Your task to perform on an android device: Go to Wikipedia Image 0: 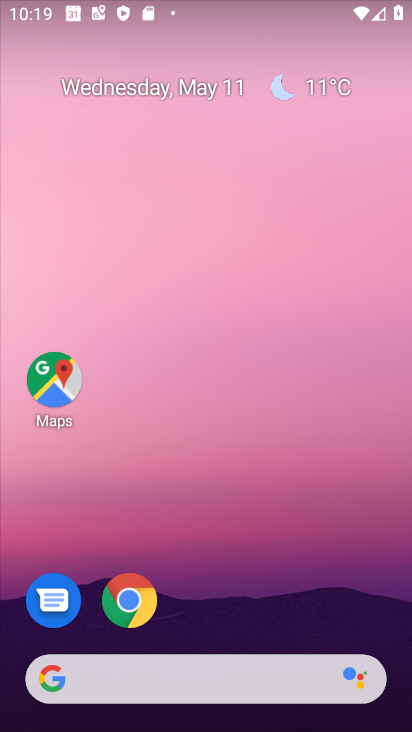
Step 0: click (387, 348)
Your task to perform on an android device: Go to Wikipedia Image 1: 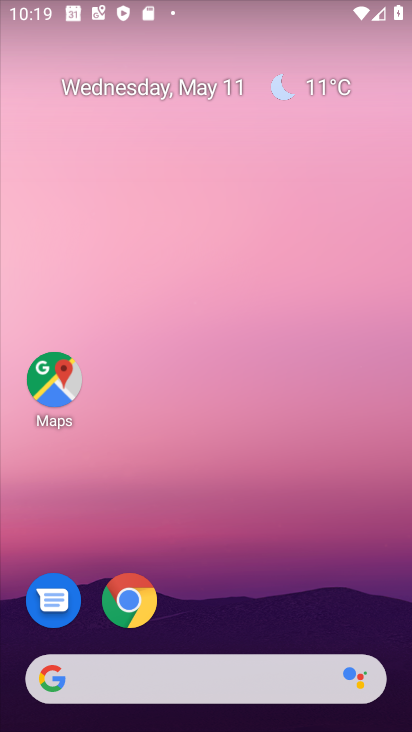
Step 1: click (186, 678)
Your task to perform on an android device: Go to Wikipedia Image 2: 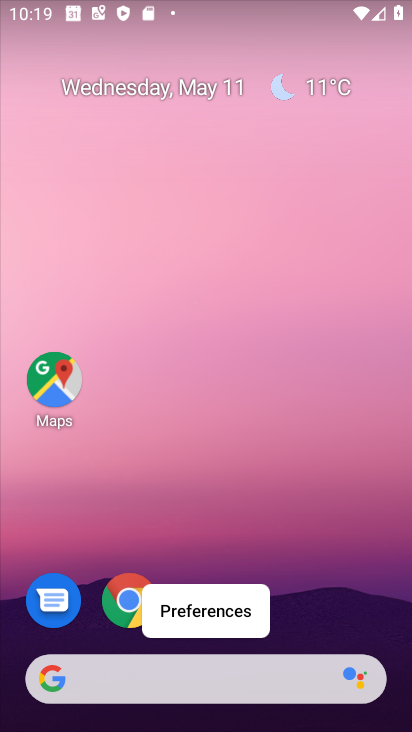
Step 2: click (131, 613)
Your task to perform on an android device: Go to Wikipedia Image 3: 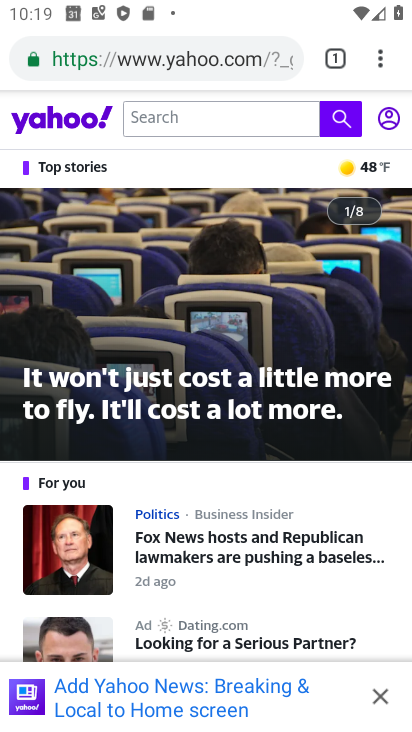
Step 3: click (195, 60)
Your task to perform on an android device: Go to Wikipedia Image 4: 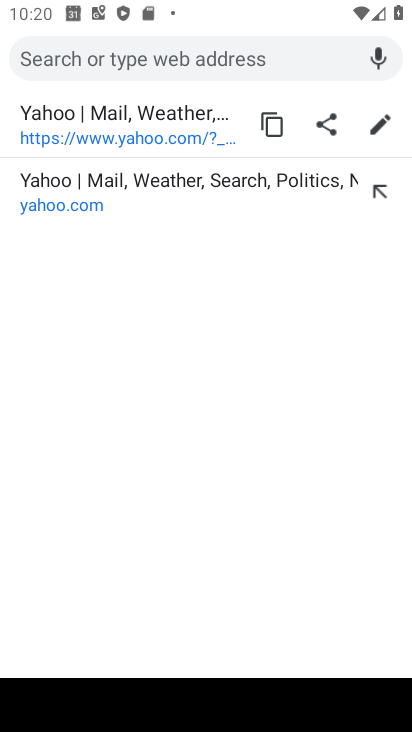
Step 4: type "wikipedia"
Your task to perform on an android device: Go to Wikipedia Image 5: 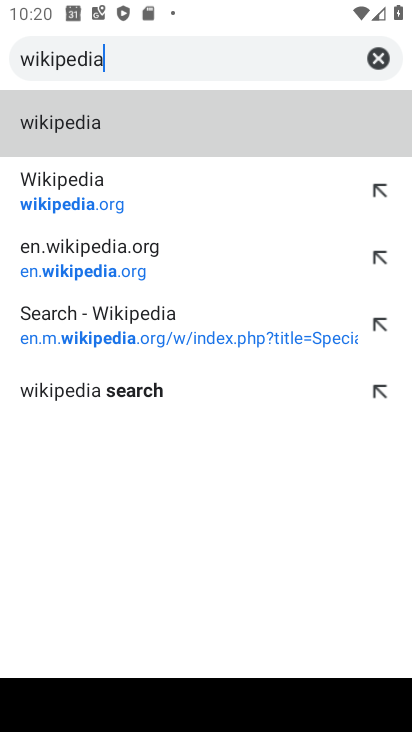
Step 5: click (101, 317)
Your task to perform on an android device: Go to Wikipedia Image 6: 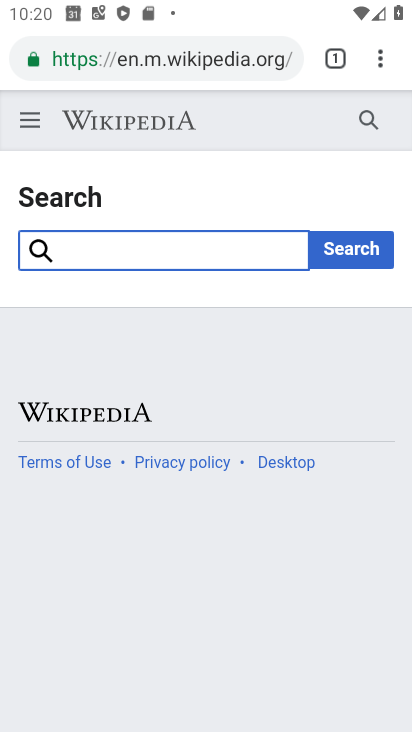
Step 6: task complete